Your task to perform on an android device: change the clock display to analog Image 0: 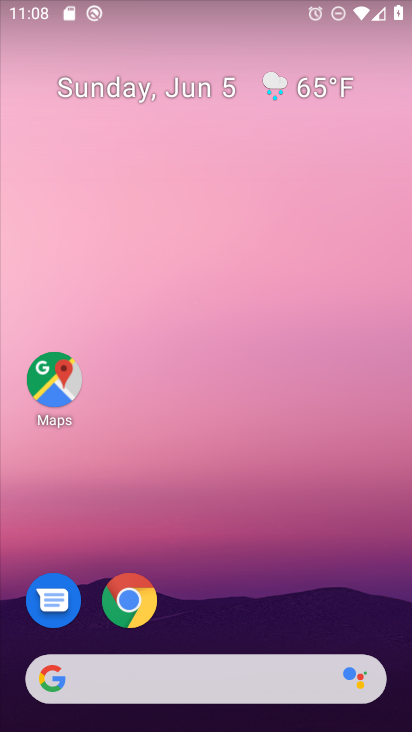
Step 0: drag from (343, 608) to (274, 74)
Your task to perform on an android device: change the clock display to analog Image 1: 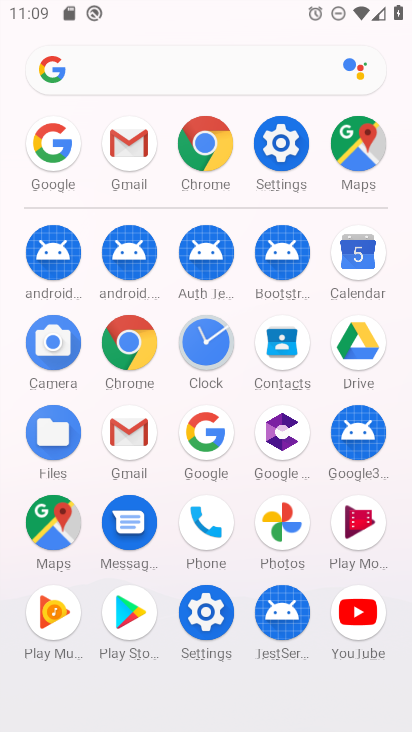
Step 1: click (213, 339)
Your task to perform on an android device: change the clock display to analog Image 2: 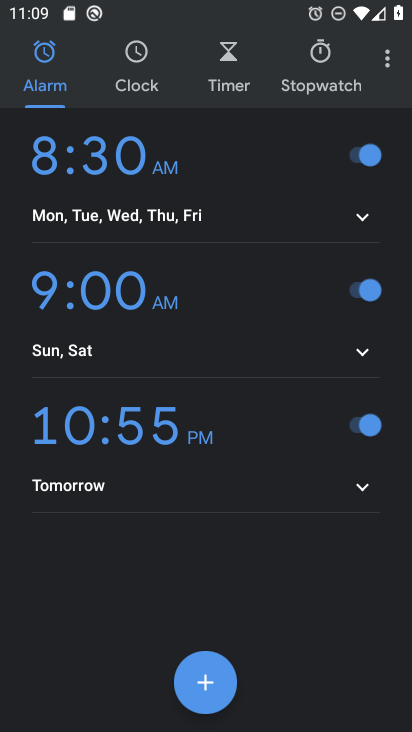
Step 2: click (387, 54)
Your task to perform on an android device: change the clock display to analog Image 3: 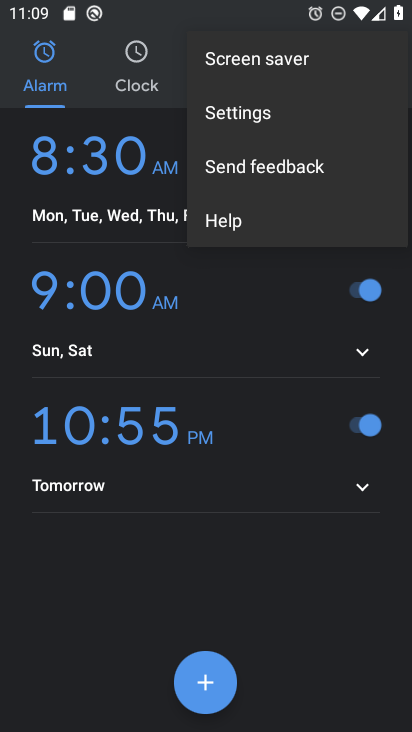
Step 3: click (216, 117)
Your task to perform on an android device: change the clock display to analog Image 4: 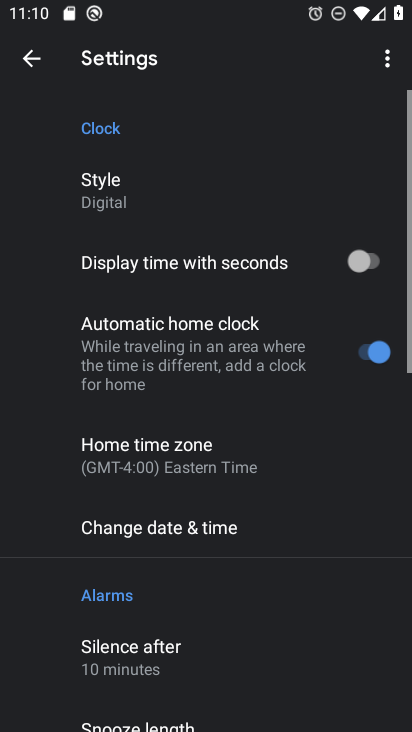
Step 4: click (167, 198)
Your task to perform on an android device: change the clock display to analog Image 5: 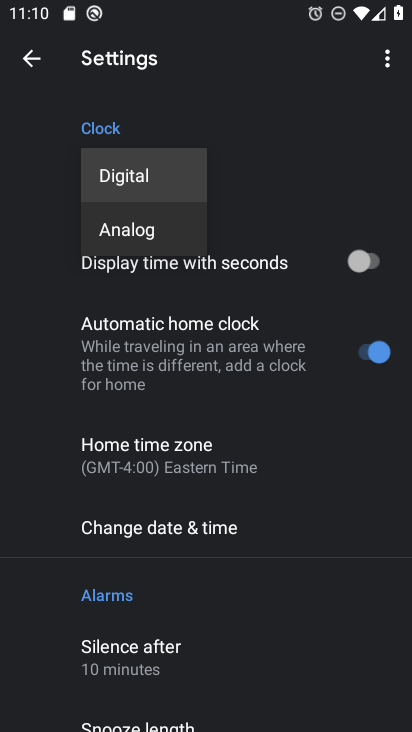
Step 5: click (154, 230)
Your task to perform on an android device: change the clock display to analog Image 6: 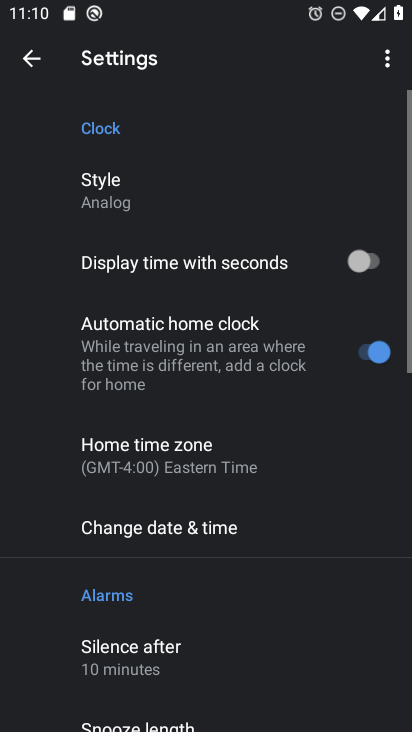
Step 6: task complete